Your task to perform on an android device: Open CNN.com Image 0: 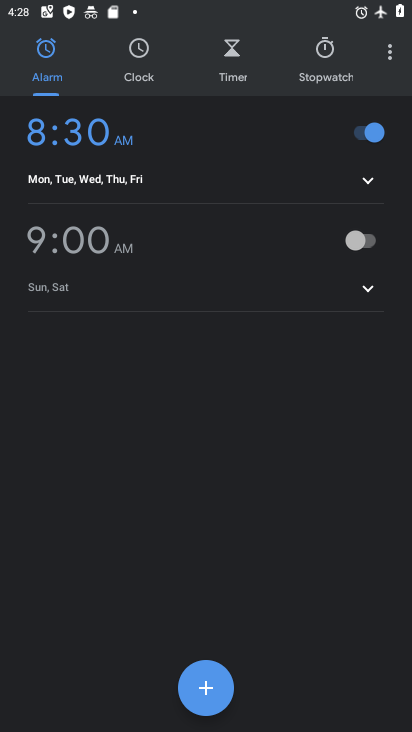
Step 0: press back button
Your task to perform on an android device: Open CNN.com Image 1: 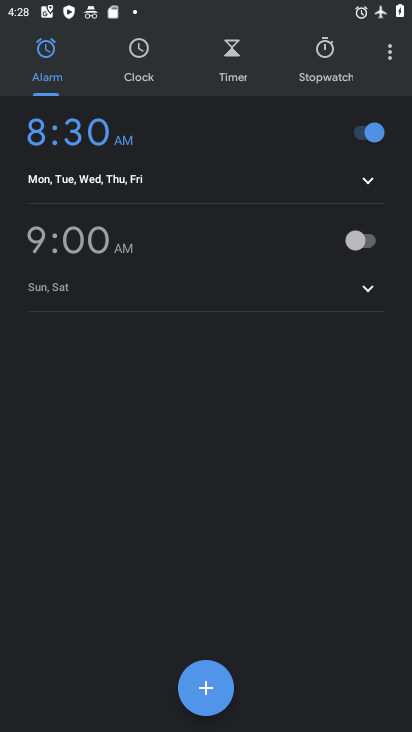
Step 1: press home button
Your task to perform on an android device: Open CNN.com Image 2: 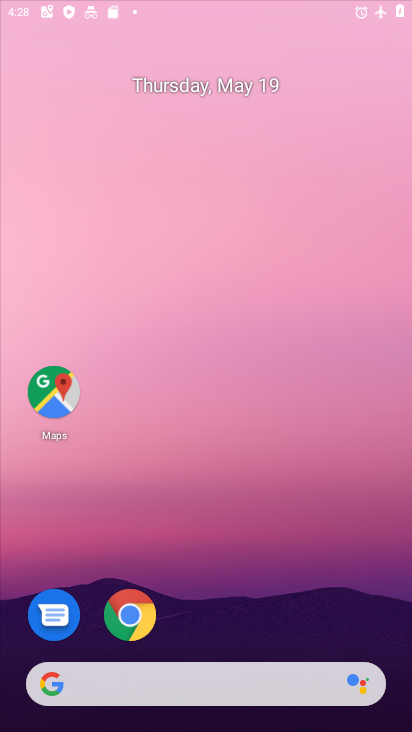
Step 2: press home button
Your task to perform on an android device: Open CNN.com Image 3: 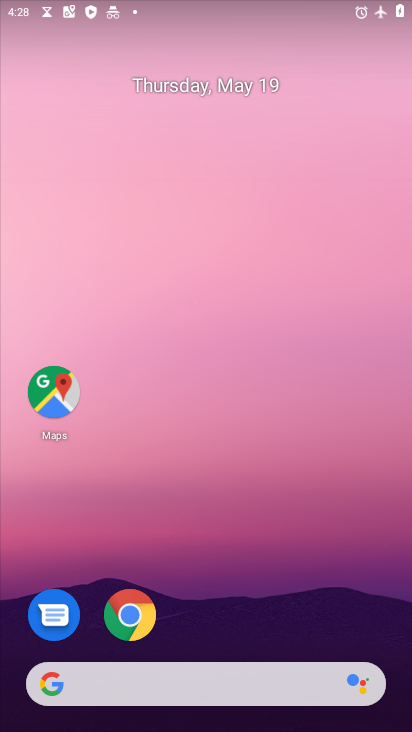
Step 3: drag from (257, 611) to (201, 27)
Your task to perform on an android device: Open CNN.com Image 4: 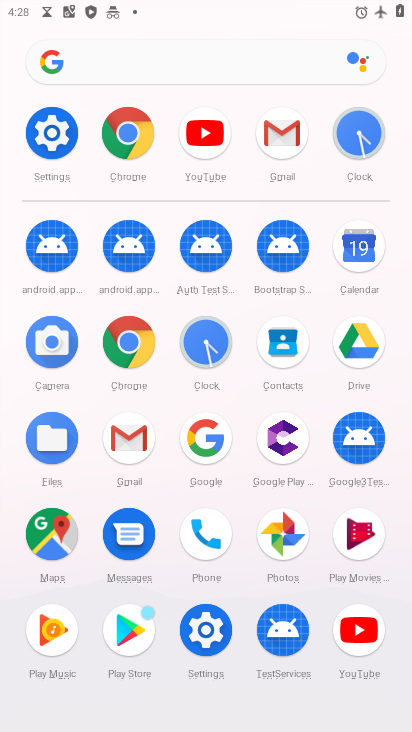
Step 4: click (133, 142)
Your task to perform on an android device: Open CNN.com Image 5: 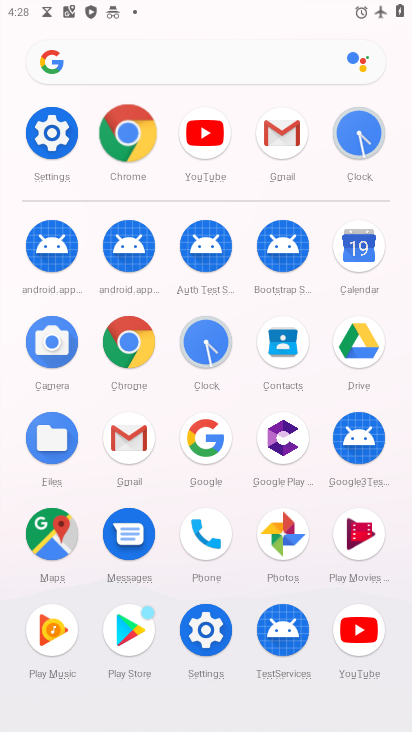
Step 5: click (133, 142)
Your task to perform on an android device: Open CNN.com Image 6: 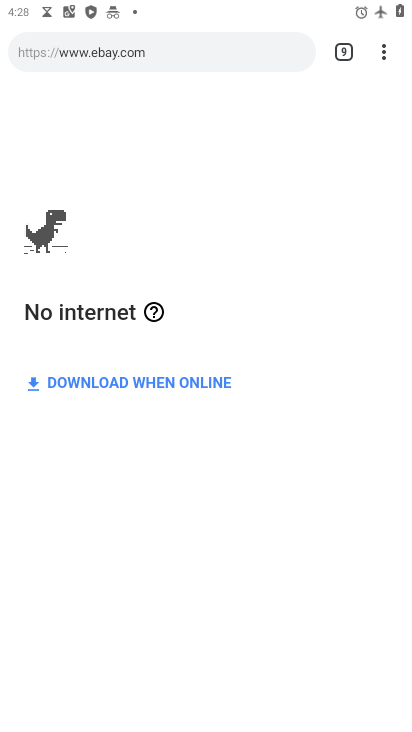
Step 6: click (132, 141)
Your task to perform on an android device: Open CNN.com Image 7: 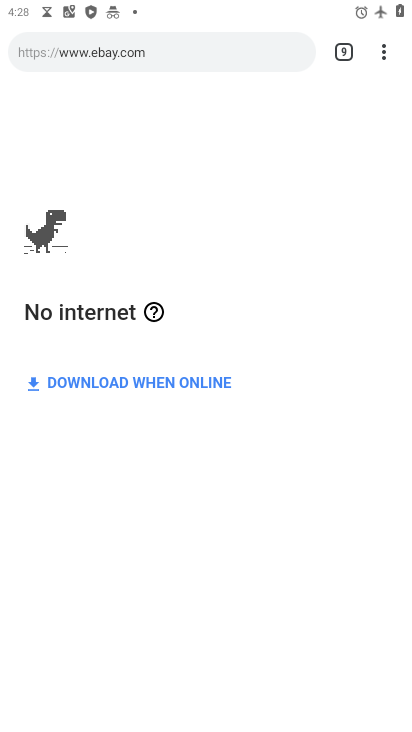
Step 7: drag from (386, 53) to (190, 103)
Your task to perform on an android device: Open CNN.com Image 8: 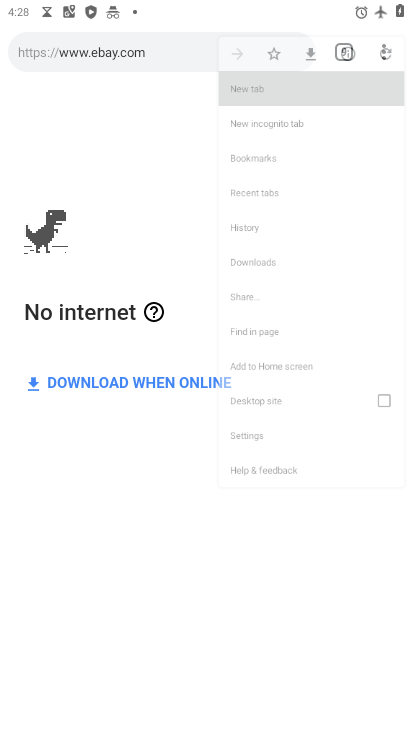
Step 8: click (190, 103)
Your task to perform on an android device: Open CNN.com Image 9: 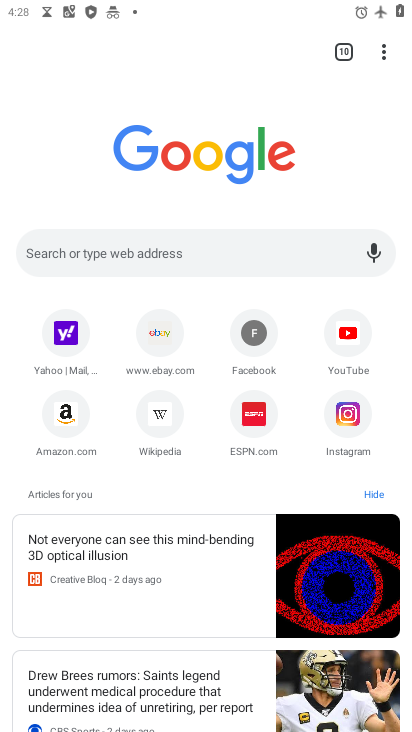
Step 9: click (149, 326)
Your task to perform on an android device: Open CNN.com Image 10: 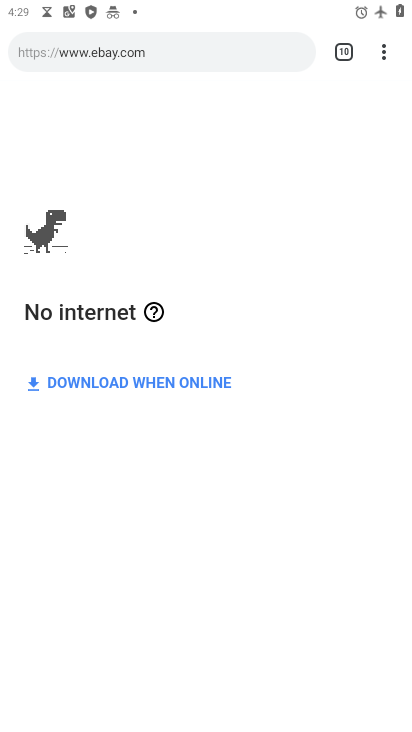
Step 10: click (59, 59)
Your task to perform on an android device: Open CNN.com Image 11: 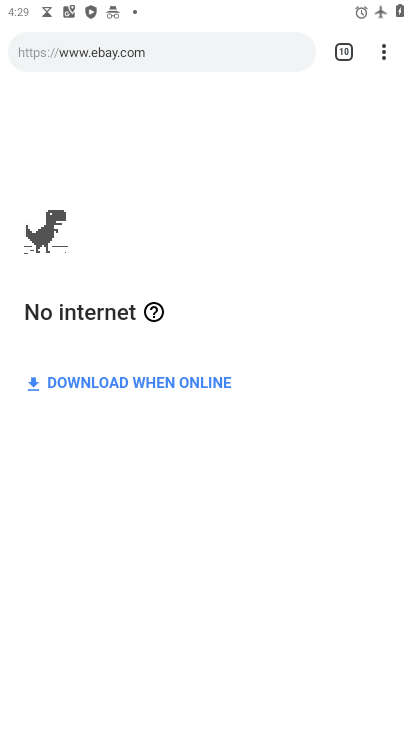
Step 11: task complete